Your task to perform on an android device: add a label to a message in the gmail app Image 0: 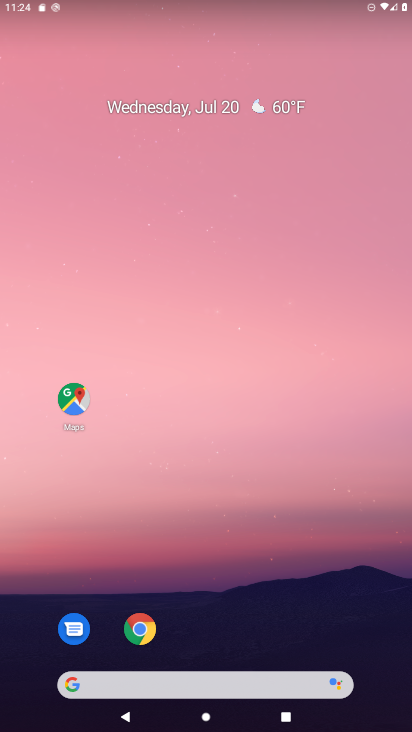
Step 0: drag from (224, 624) to (235, 103)
Your task to perform on an android device: add a label to a message in the gmail app Image 1: 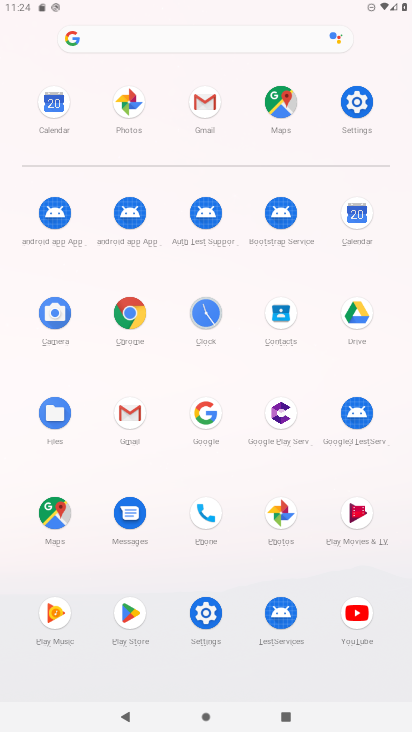
Step 1: click (201, 104)
Your task to perform on an android device: add a label to a message in the gmail app Image 2: 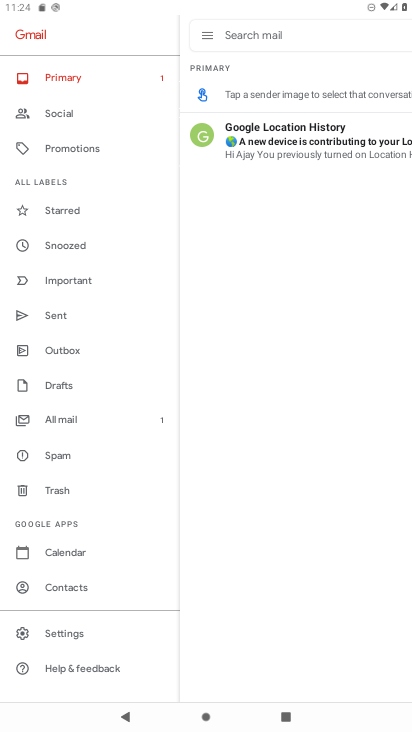
Step 2: click (75, 423)
Your task to perform on an android device: add a label to a message in the gmail app Image 3: 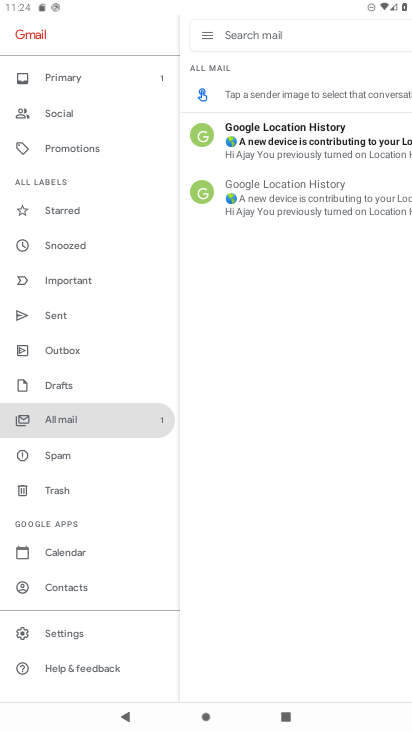
Step 3: click (305, 133)
Your task to perform on an android device: add a label to a message in the gmail app Image 4: 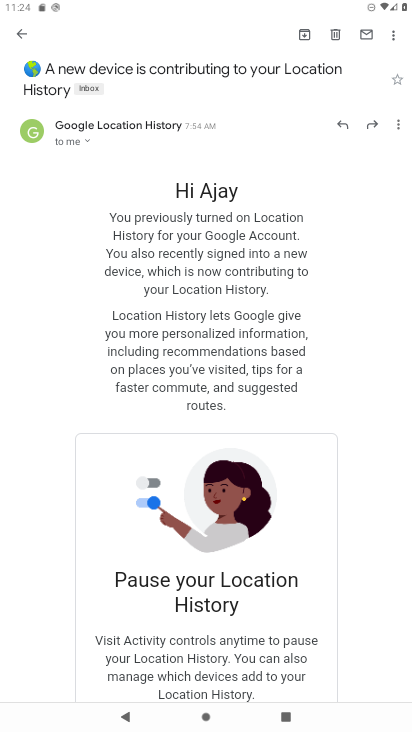
Step 4: click (91, 87)
Your task to perform on an android device: add a label to a message in the gmail app Image 5: 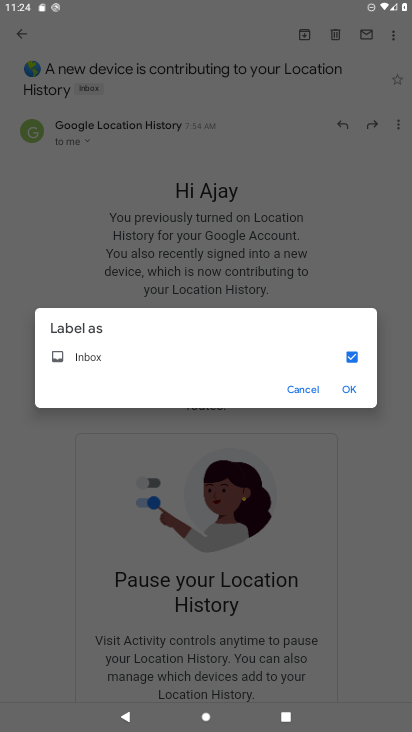
Step 5: click (347, 383)
Your task to perform on an android device: add a label to a message in the gmail app Image 6: 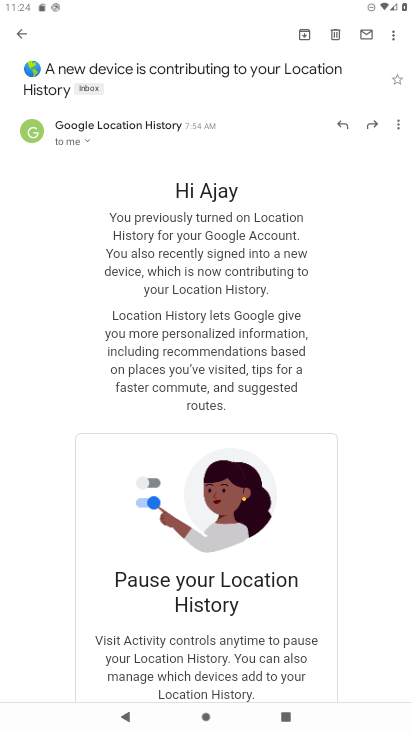
Step 6: task complete